Your task to perform on an android device: What's on my calendar tomorrow? Image 0: 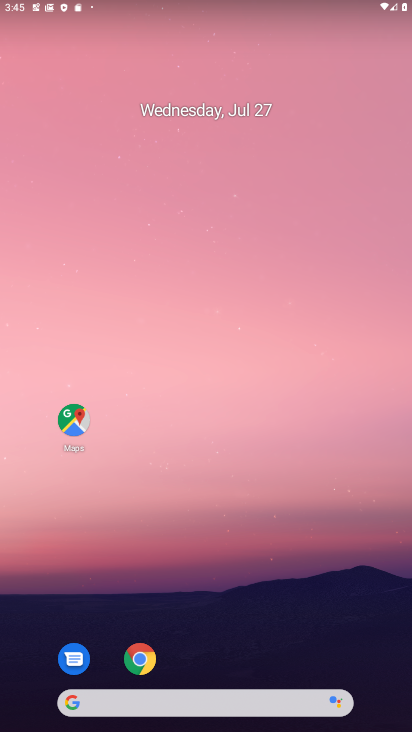
Step 0: drag from (226, 676) to (229, 290)
Your task to perform on an android device: What's on my calendar tomorrow? Image 1: 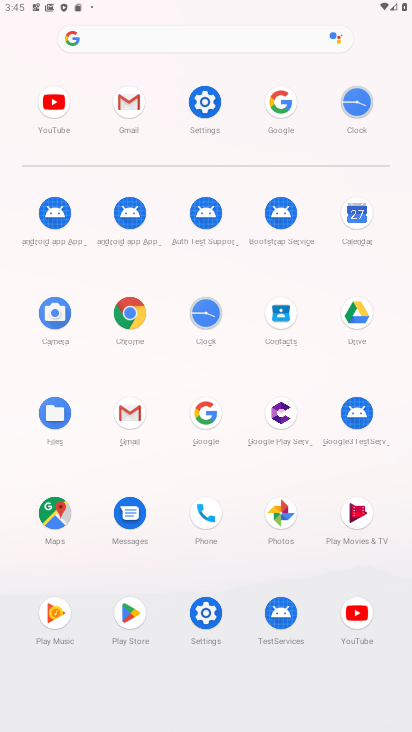
Step 1: click (344, 223)
Your task to perform on an android device: What's on my calendar tomorrow? Image 2: 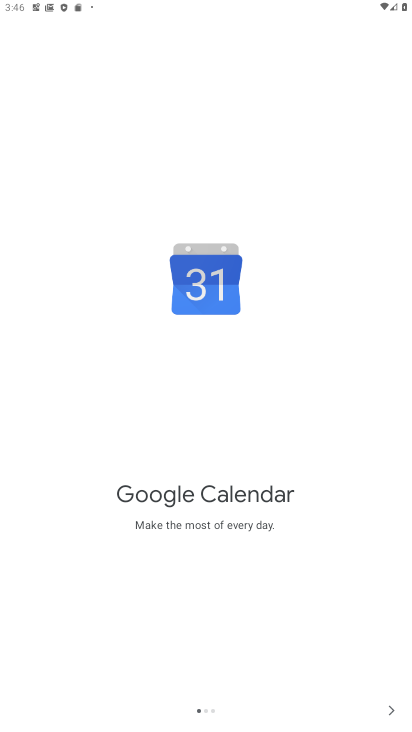
Step 2: click (390, 710)
Your task to perform on an android device: What's on my calendar tomorrow? Image 3: 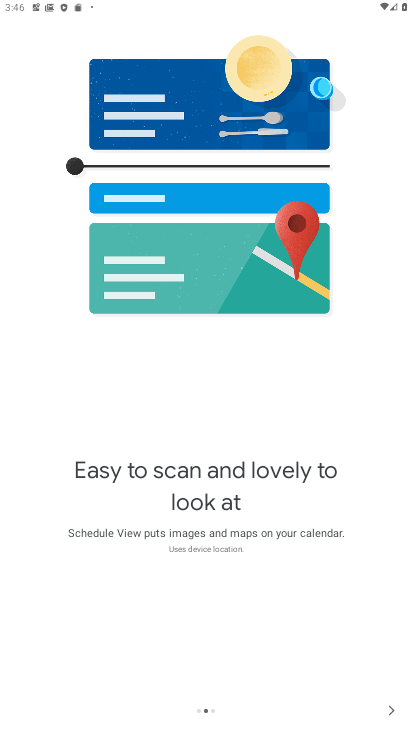
Step 3: click (390, 710)
Your task to perform on an android device: What's on my calendar tomorrow? Image 4: 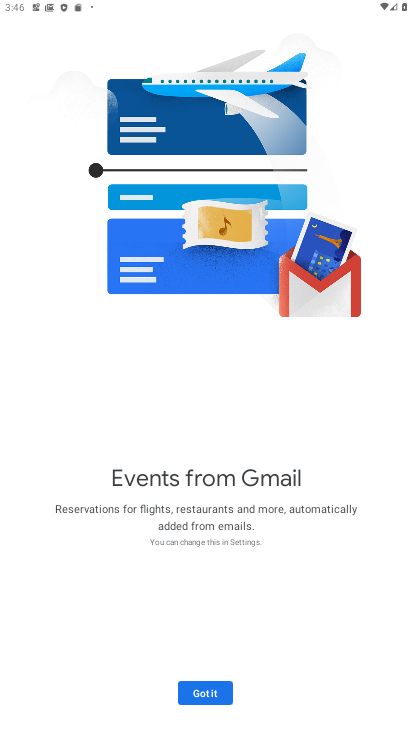
Step 4: click (204, 690)
Your task to perform on an android device: What's on my calendar tomorrow? Image 5: 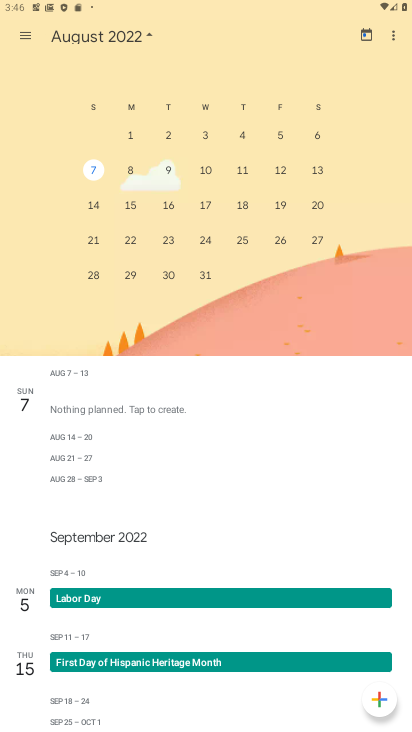
Step 5: drag from (44, 195) to (344, 212)
Your task to perform on an android device: What's on my calendar tomorrow? Image 6: 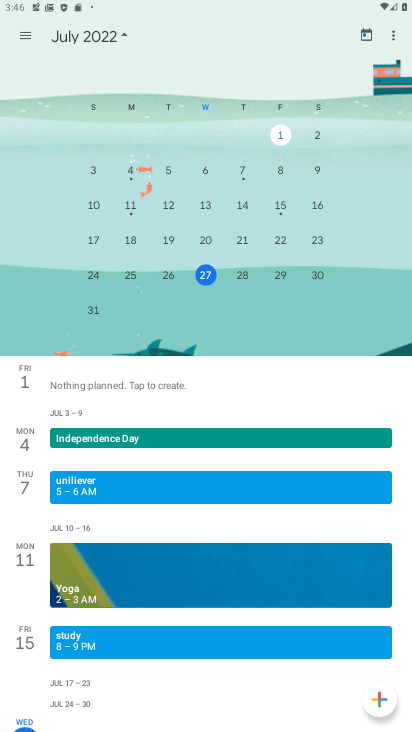
Step 6: click (243, 269)
Your task to perform on an android device: What's on my calendar tomorrow? Image 7: 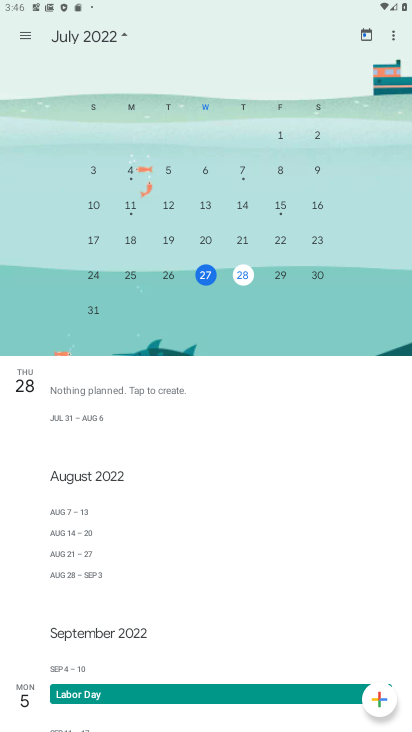
Step 7: task complete